Your task to perform on an android device: Open accessibility settings Image 0: 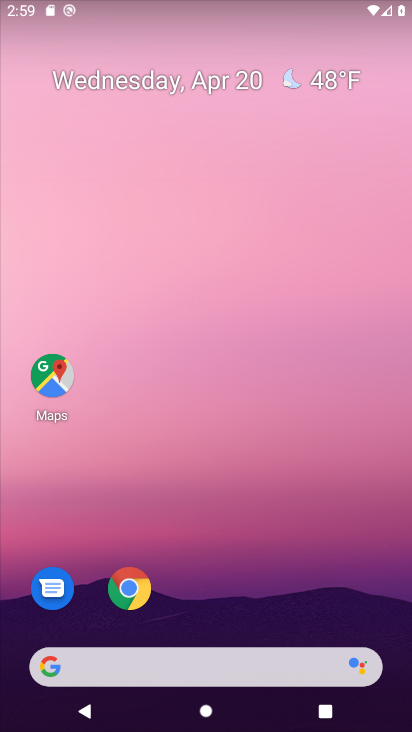
Step 0: drag from (343, 589) to (359, 163)
Your task to perform on an android device: Open accessibility settings Image 1: 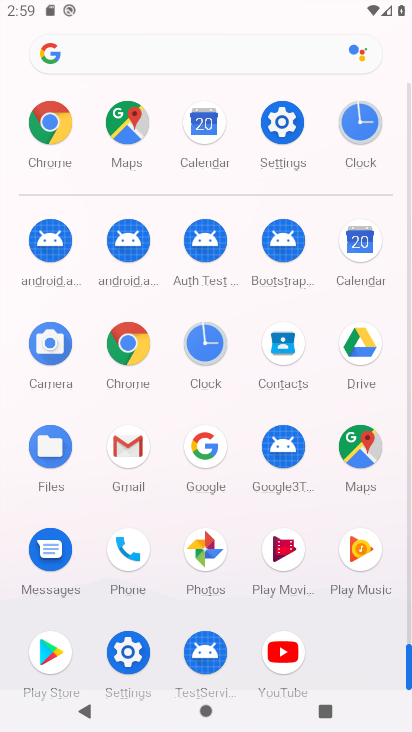
Step 1: click (287, 116)
Your task to perform on an android device: Open accessibility settings Image 2: 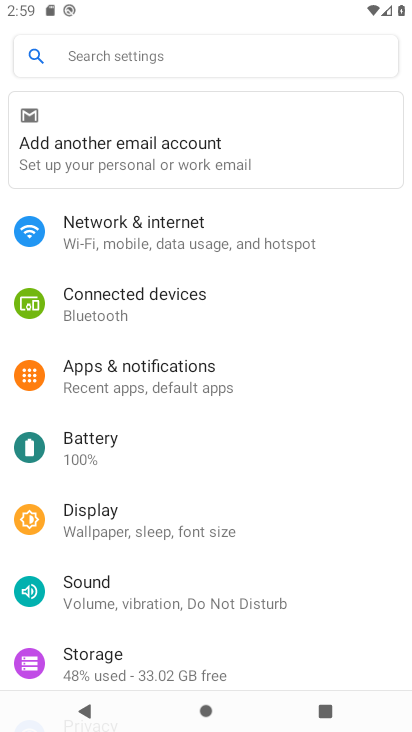
Step 2: drag from (357, 506) to (353, 418)
Your task to perform on an android device: Open accessibility settings Image 3: 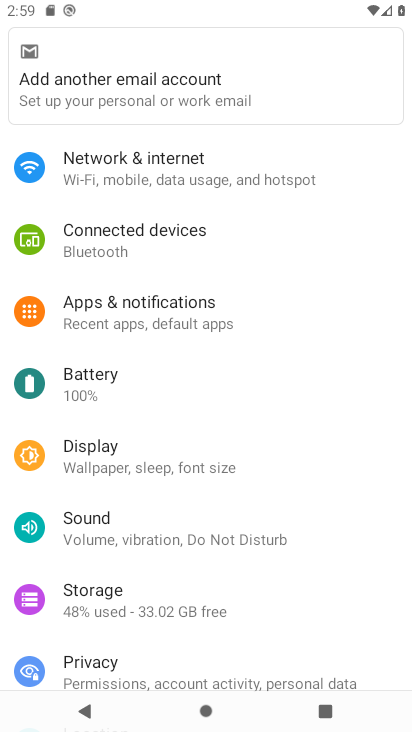
Step 3: drag from (363, 539) to (364, 436)
Your task to perform on an android device: Open accessibility settings Image 4: 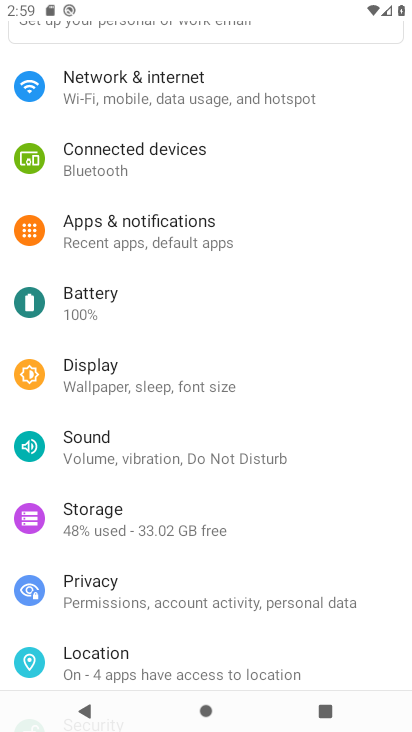
Step 4: drag from (367, 522) to (364, 395)
Your task to perform on an android device: Open accessibility settings Image 5: 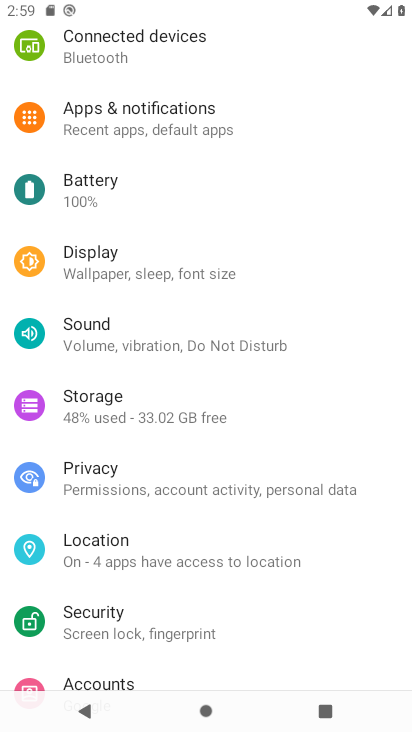
Step 5: drag from (362, 554) to (363, 428)
Your task to perform on an android device: Open accessibility settings Image 6: 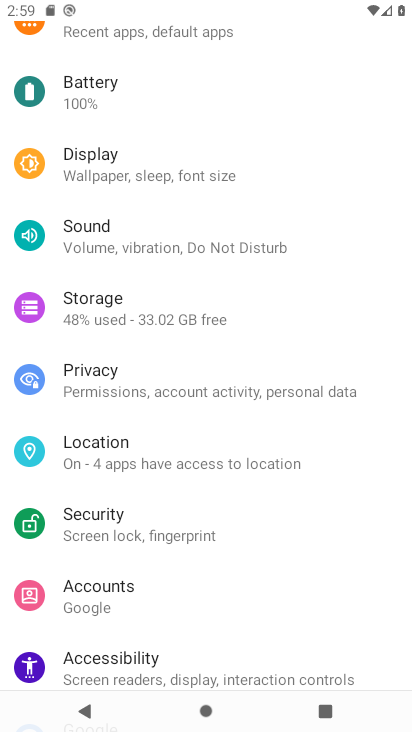
Step 6: drag from (356, 582) to (361, 419)
Your task to perform on an android device: Open accessibility settings Image 7: 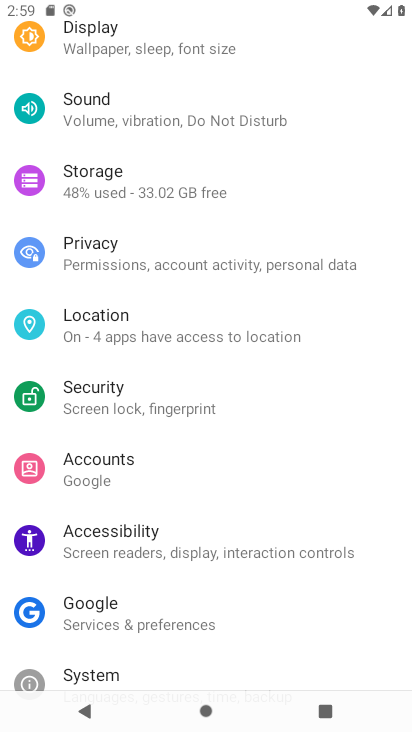
Step 7: drag from (365, 623) to (369, 487)
Your task to perform on an android device: Open accessibility settings Image 8: 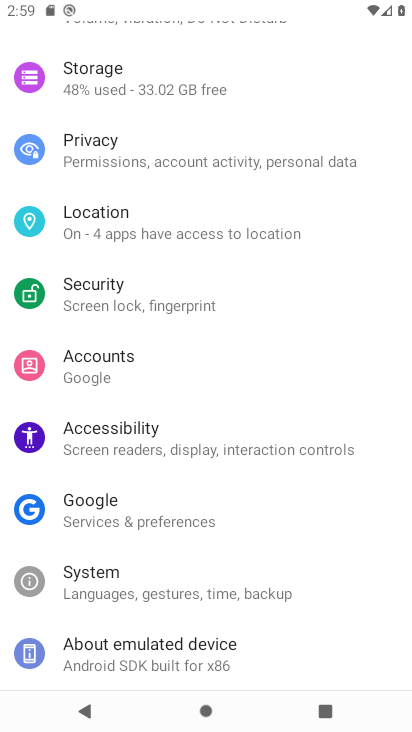
Step 8: drag from (353, 609) to (359, 473)
Your task to perform on an android device: Open accessibility settings Image 9: 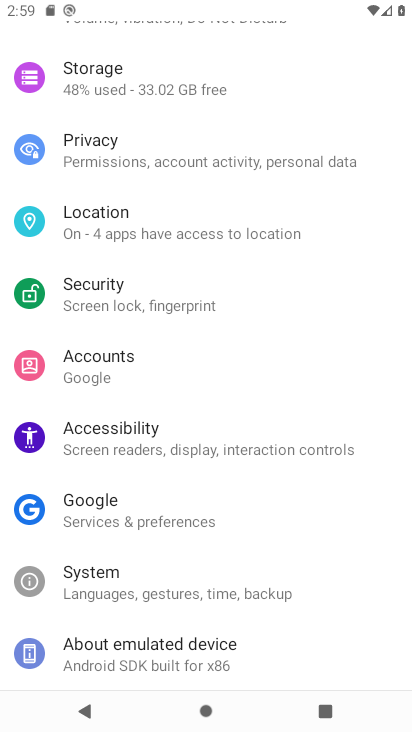
Step 9: click (201, 435)
Your task to perform on an android device: Open accessibility settings Image 10: 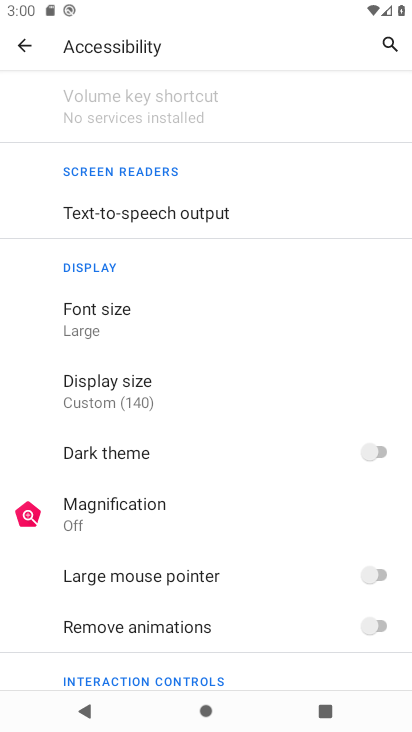
Step 10: task complete